Your task to perform on an android device: Open settings on Google Maps Image 0: 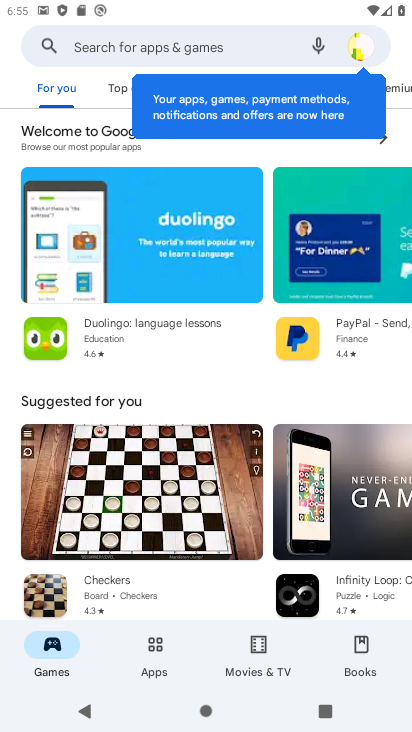
Step 0: press back button
Your task to perform on an android device: Open settings on Google Maps Image 1: 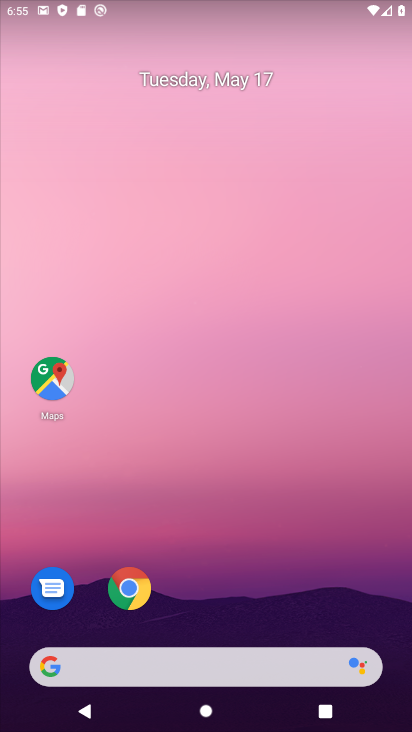
Step 1: click (52, 376)
Your task to perform on an android device: Open settings on Google Maps Image 2: 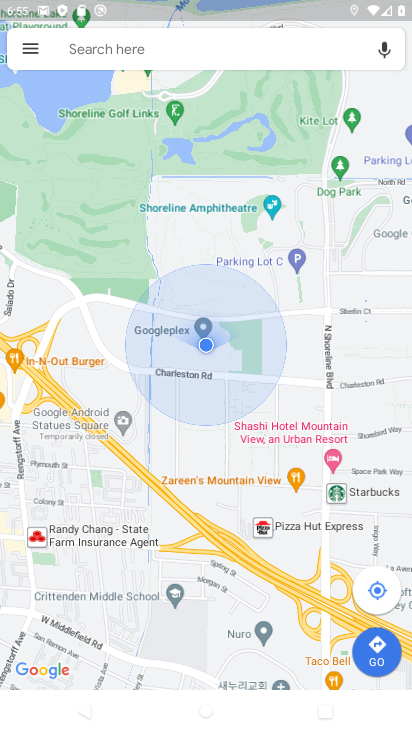
Step 2: click (30, 49)
Your task to perform on an android device: Open settings on Google Maps Image 3: 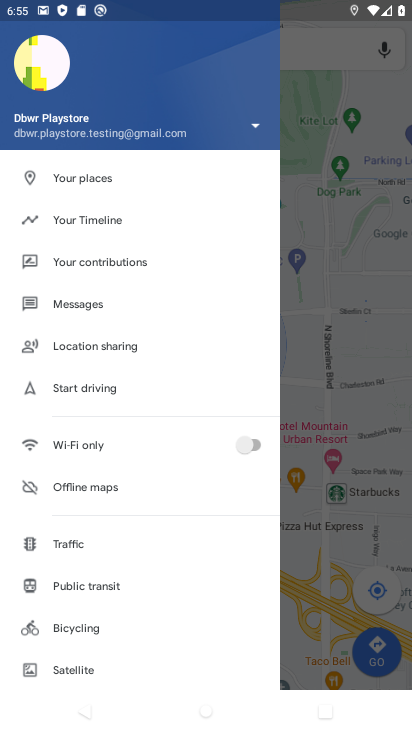
Step 3: drag from (83, 555) to (109, 414)
Your task to perform on an android device: Open settings on Google Maps Image 4: 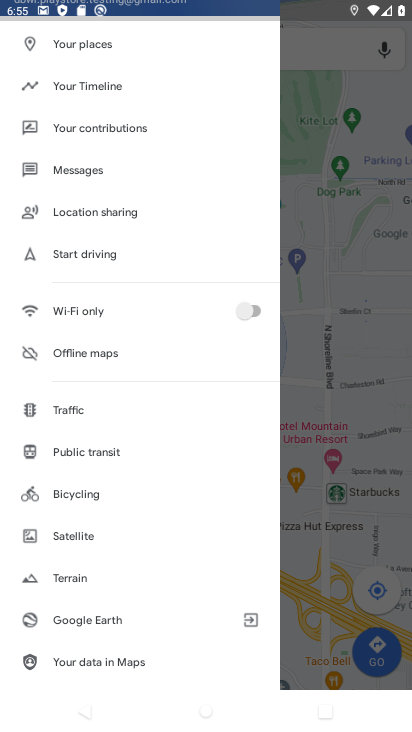
Step 4: drag from (80, 640) to (83, 552)
Your task to perform on an android device: Open settings on Google Maps Image 5: 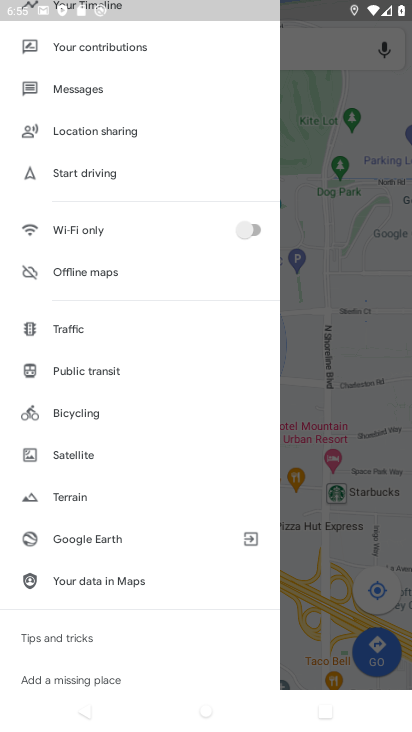
Step 5: drag from (151, 650) to (150, 515)
Your task to perform on an android device: Open settings on Google Maps Image 6: 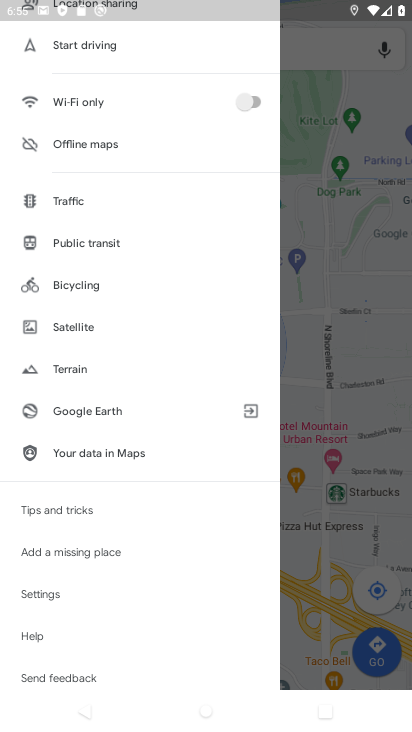
Step 6: click (59, 594)
Your task to perform on an android device: Open settings on Google Maps Image 7: 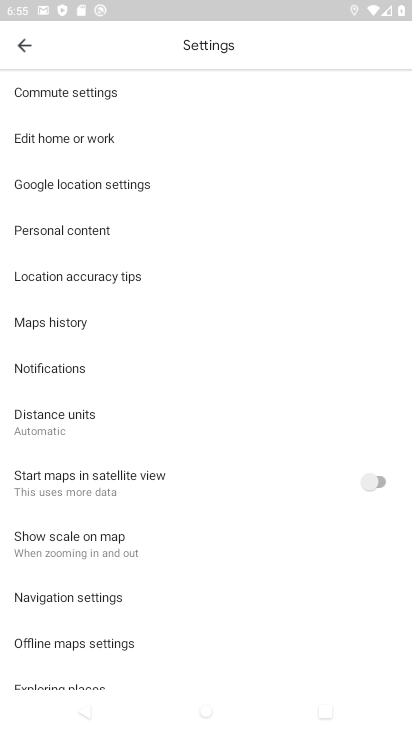
Step 7: task complete